Your task to perform on an android device: Open notification settings Image 0: 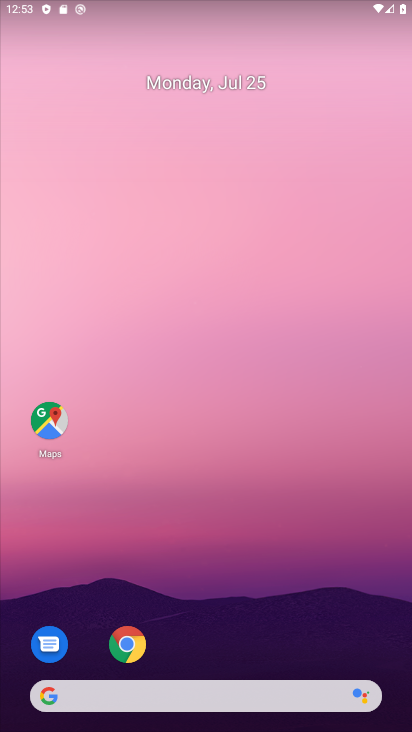
Step 0: drag from (310, 614) to (291, 2)
Your task to perform on an android device: Open notification settings Image 1: 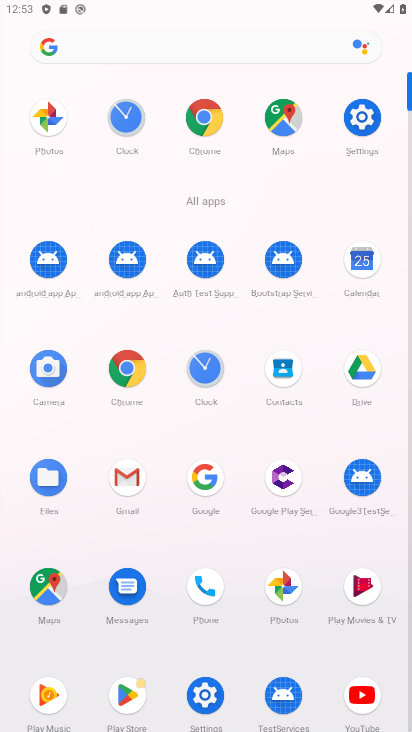
Step 1: click (367, 116)
Your task to perform on an android device: Open notification settings Image 2: 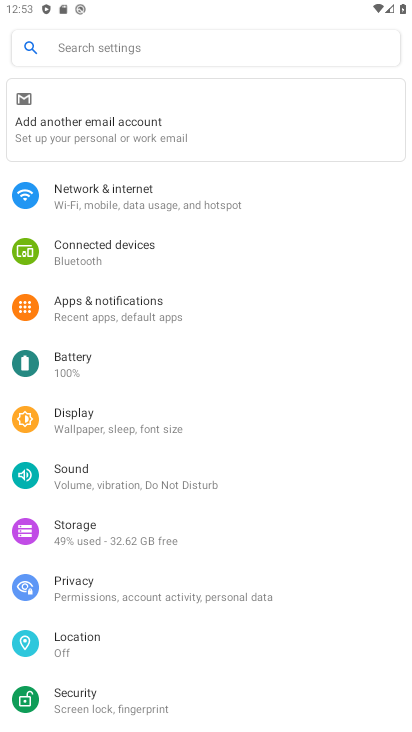
Step 2: click (129, 305)
Your task to perform on an android device: Open notification settings Image 3: 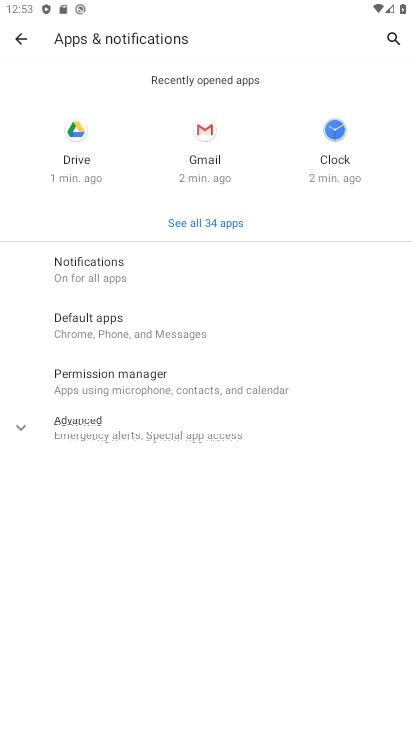
Step 3: click (121, 261)
Your task to perform on an android device: Open notification settings Image 4: 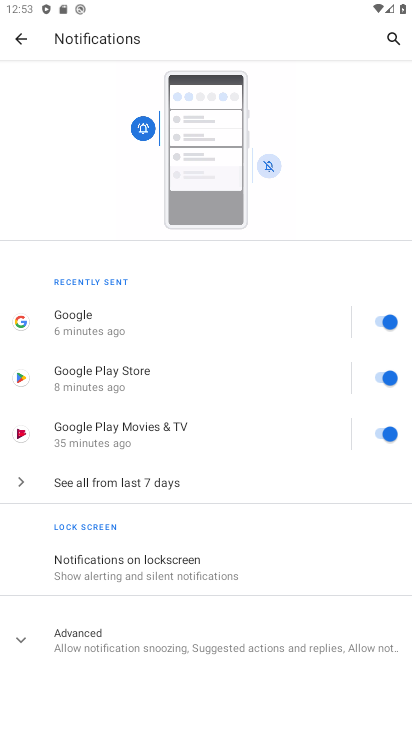
Step 4: task complete